Your task to perform on an android device: Go to network settings Image 0: 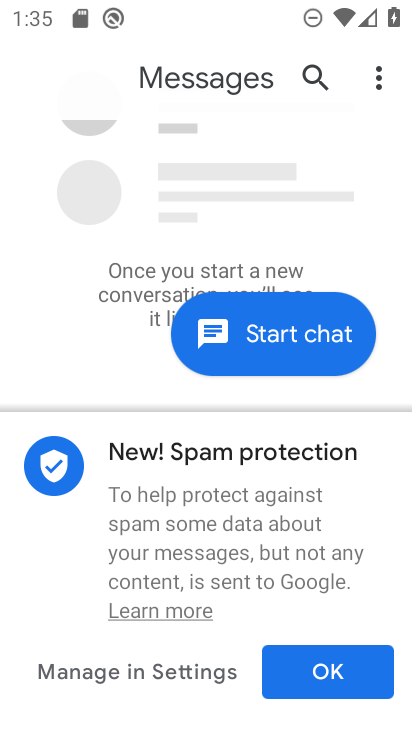
Step 0: press home button
Your task to perform on an android device: Go to network settings Image 1: 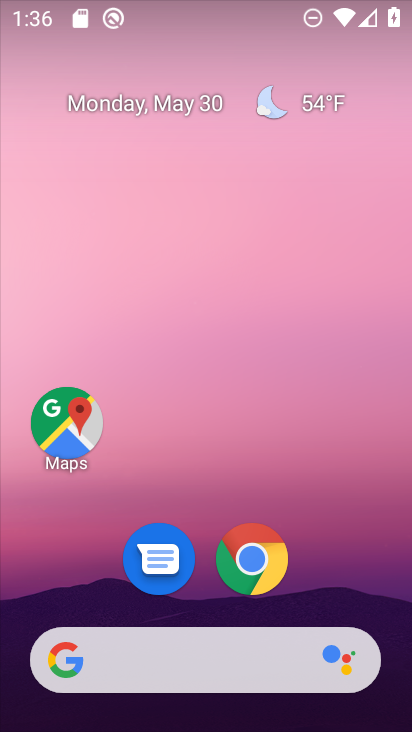
Step 1: drag from (332, 596) to (318, 32)
Your task to perform on an android device: Go to network settings Image 2: 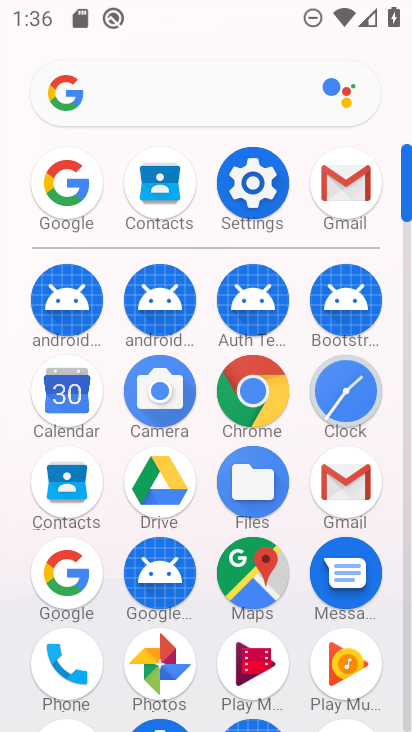
Step 2: click (255, 184)
Your task to perform on an android device: Go to network settings Image 3: 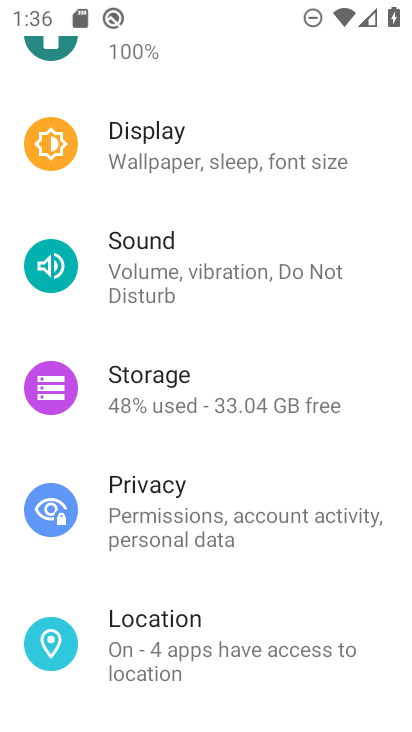
Step 3: drag from (231, 177) to (242, 648)
Your task to perform on an android device: Go to network settings Image 4: 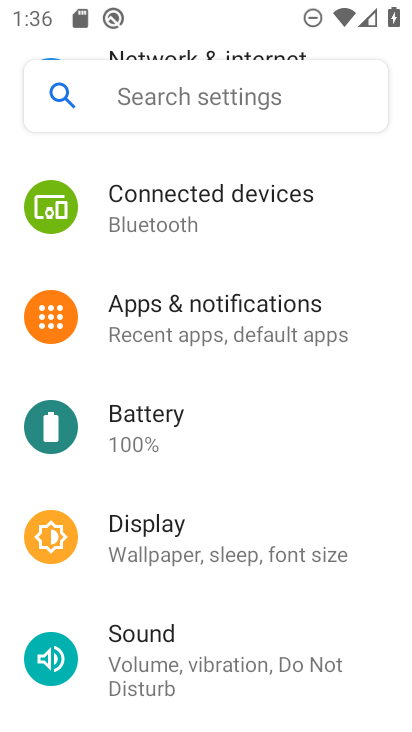
Step 4: drag from (251, 224) to (252, 696)
Your task to perform on an android device: Go to network settings Image 5: 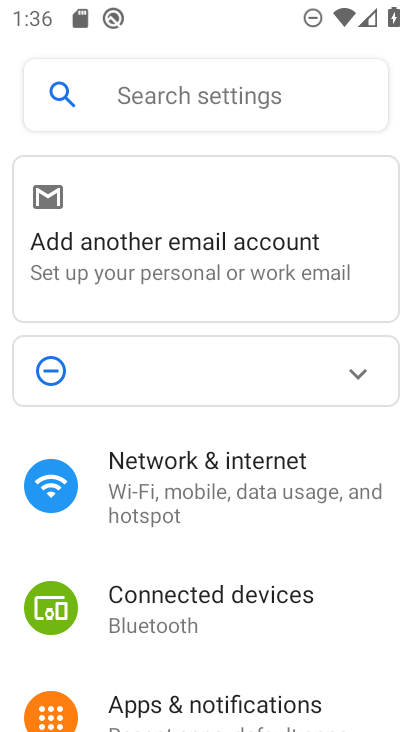
Step 5: click (255, 494)
Your task to perform on an android device: Go to network settings Image 6: 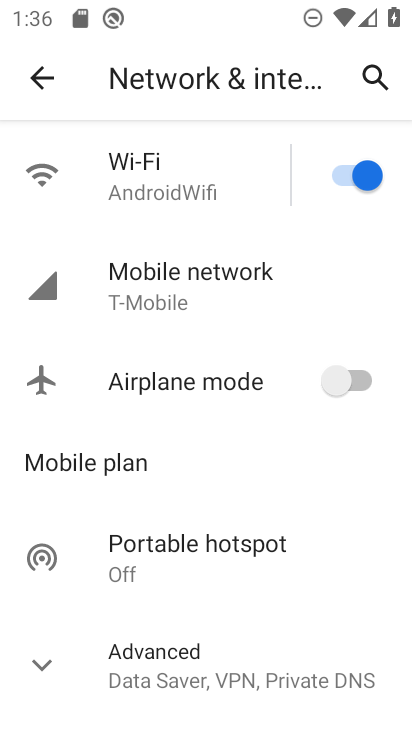
Step 6: task complete